Your task to perform on an android device: Open Youtube and go to "Your channel" Image 0: 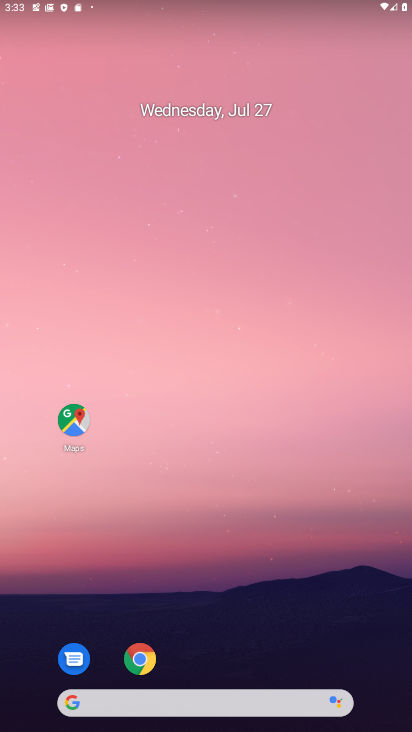
Step 0: drag from (226, 692) to (219, 340)
Your task to perform on an android device: Open Youtube and go to "Your channel" Image 1: 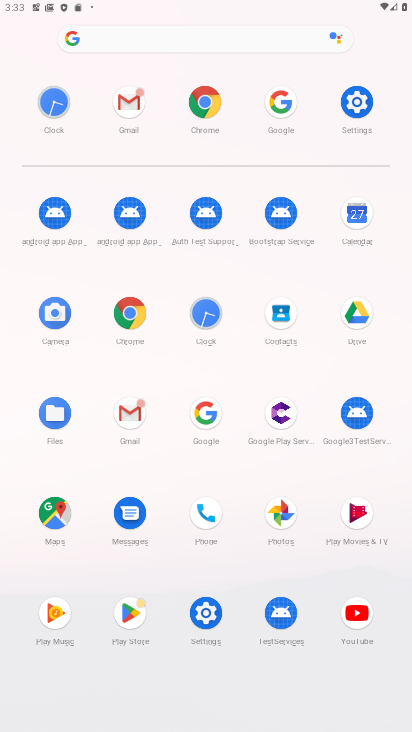
Step 1: click (340, 611)
Your task to perform on an android device: Open Youtube and go to "Your channel" Image 2: 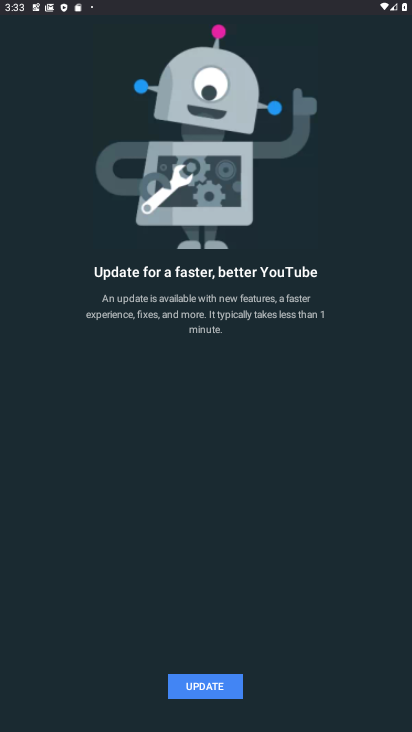
Step 2: click (202, 675)
Your task to perform on an android device: Open Youtube and go to "Your channel" Image 3: 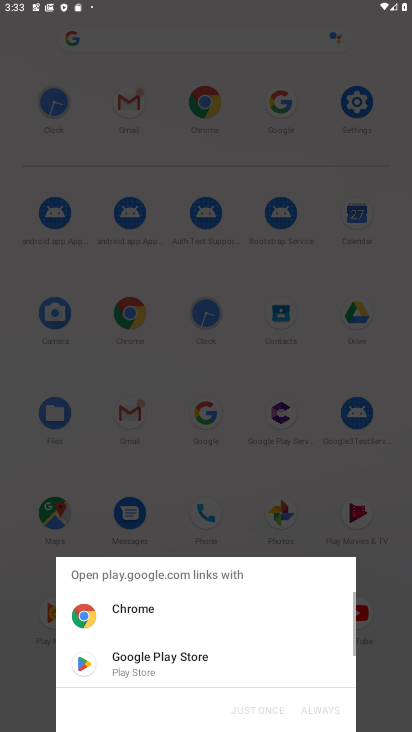
Step 3: click (140, 665)
Your task to perform on an android device: Open Youtube and go to "Your channel" Image 4: 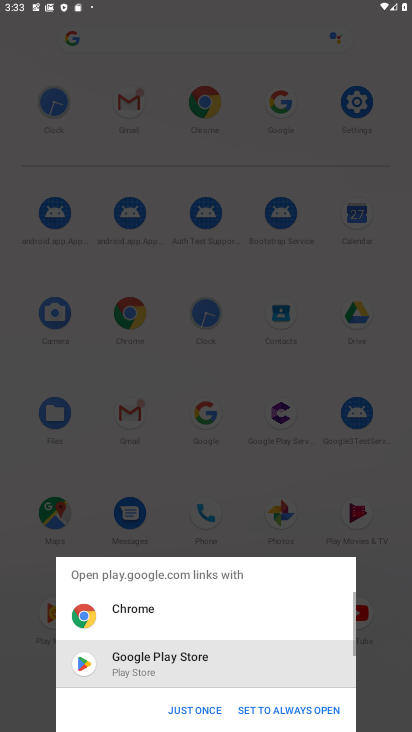
Step 4: click (203, 704)
Your task to perform on an android device: Open Youtube and go to "Your channel" Image 5: 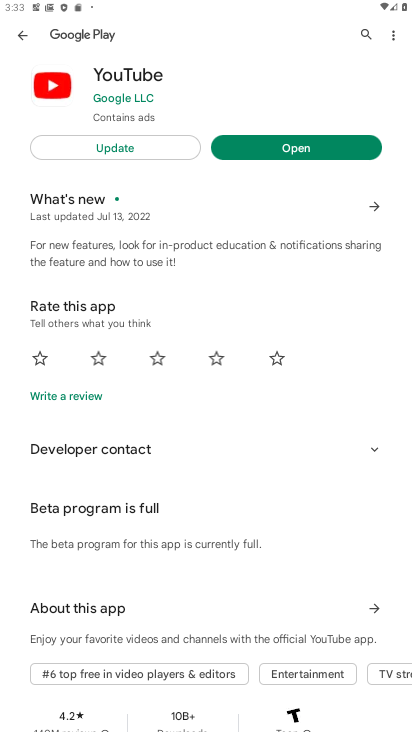
Step 5: click (113, 144)
Your task to perform on an android device: Open Youtube and go to "Your channel" Image 6: 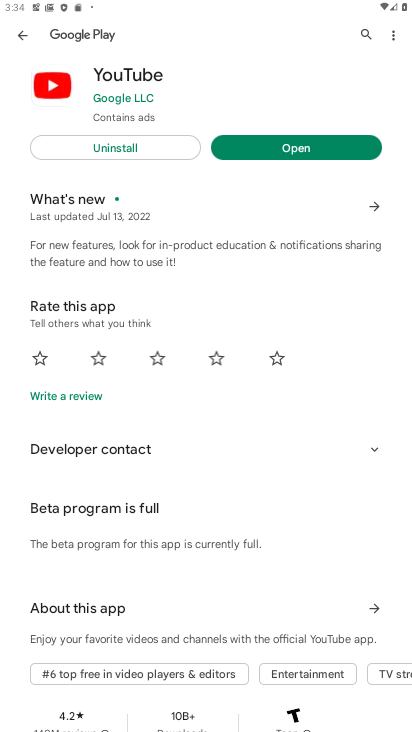
Step 6: click (255, 147)
Your task to perform on an android device: Open Youtube and go to "Your channel" Image 7: 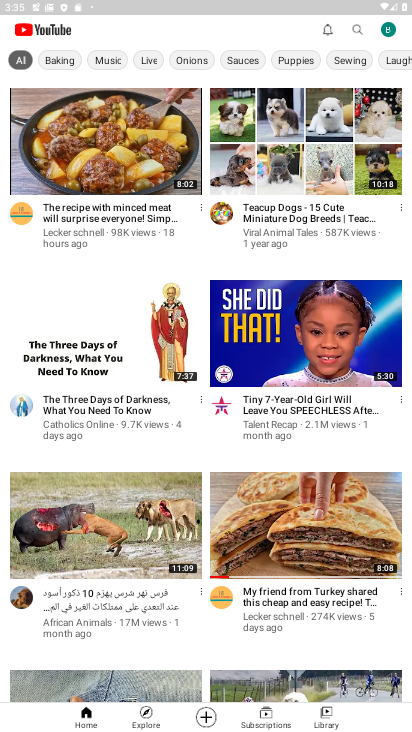
Step 7: click (382, 38)
Your task to perform on an android device: Open Youtube and go to "Your channel" Image 8: 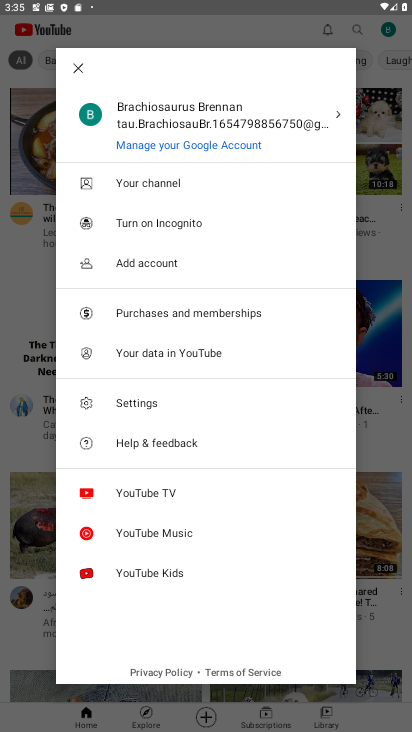
Step 8: click (150, 188)
Your task to perform on an android device: Open Youtube and go to "Your channel" Image 9: 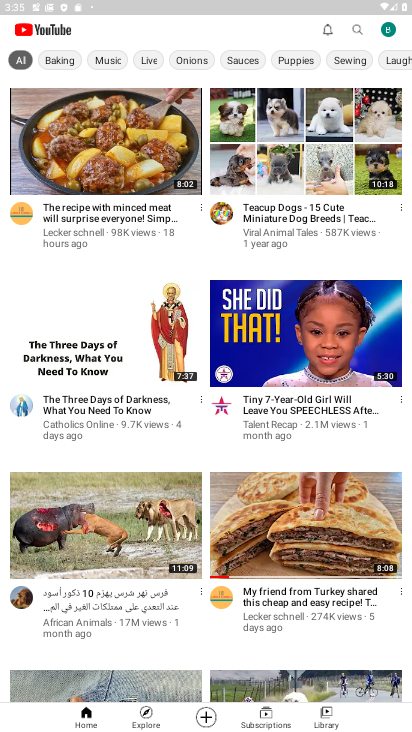
Step 9: task complete